Your task to perform on an android device: open chrome and create a bookmark for the current page Image 0: 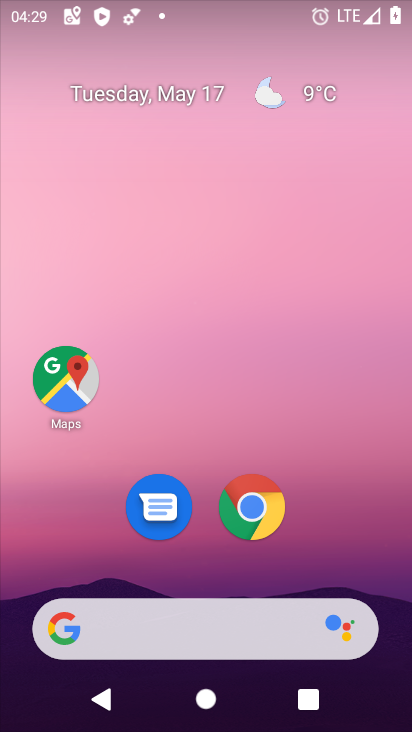
Step 0: click (265, 504)
Your task to perform on an android device: open chrome and create a bookmark for the current page Image 1: 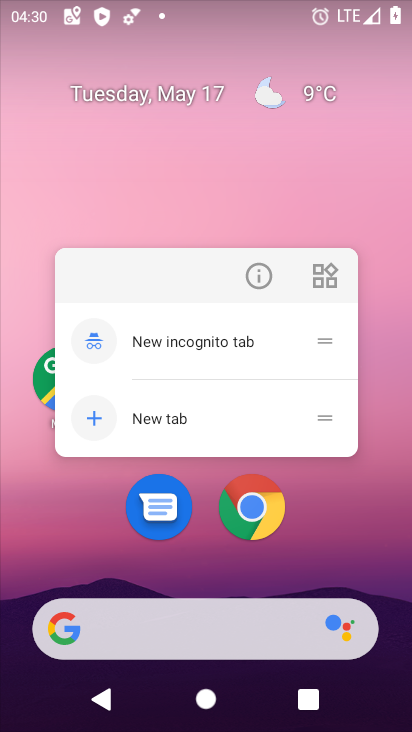
Step 1: click (229, 520)
Your task to perform on an android device: open chrome and create a bookmark for the current page Image 2: 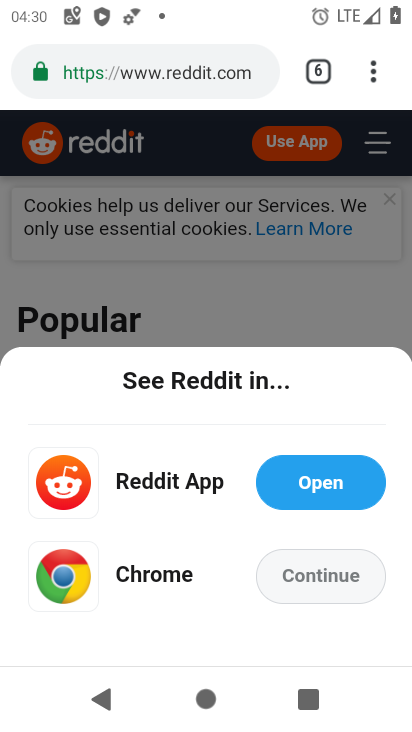
Step 2: click (369, 69)
Your task to perform on an android device: open chrome and create a bookmark for the current page Image 3: 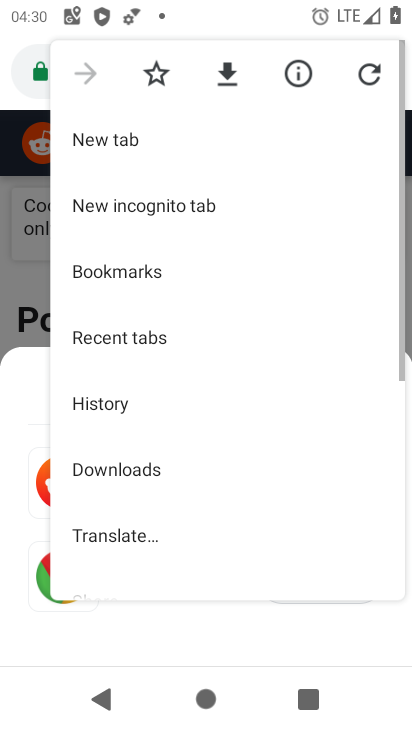
Step 3: click (148, 81)
Your task to perform on an android device: open chrome and create a bookmark for the current page Image 4: 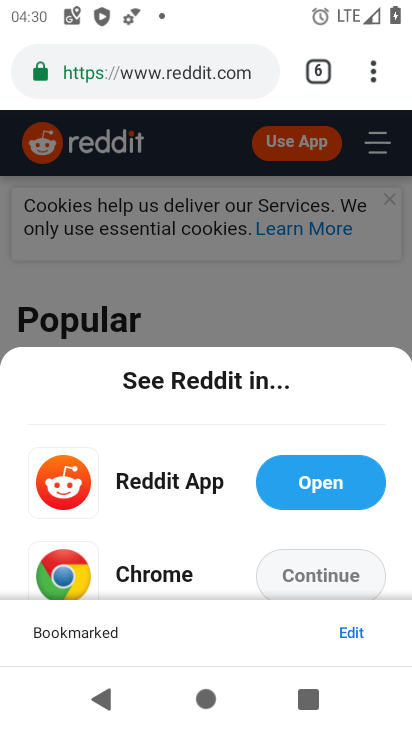
Step 4: task complete